Your task to perform on an android device: toggle sleep mode Image 0: 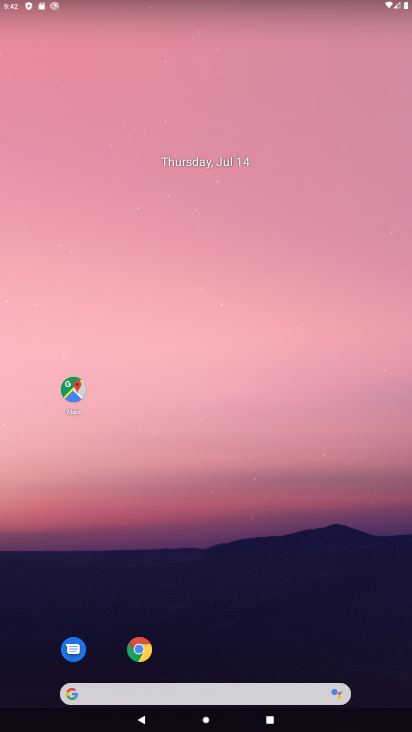
Step 0: drag from (227, 611) to (229, 43)
Your task to perform on an android device: toggle sleep mode Image 1: 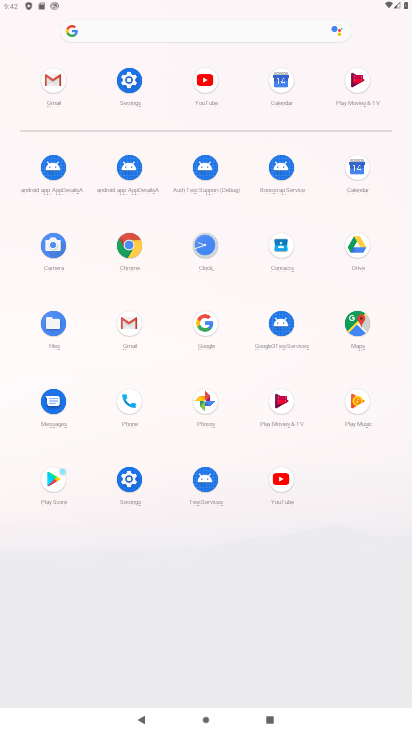
Step 1: click (143, 94)
Your task to perform on an android device: toggle sleep mode Image 2: 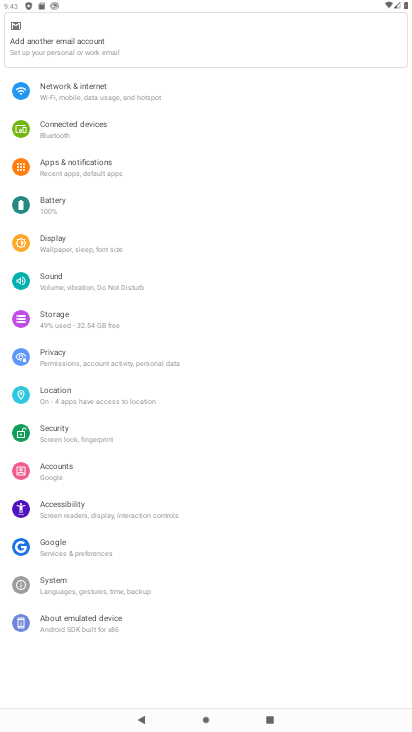
Step 2: click (65, 240)
Your task to perform on an android device: toggle sleep mode Image 3: 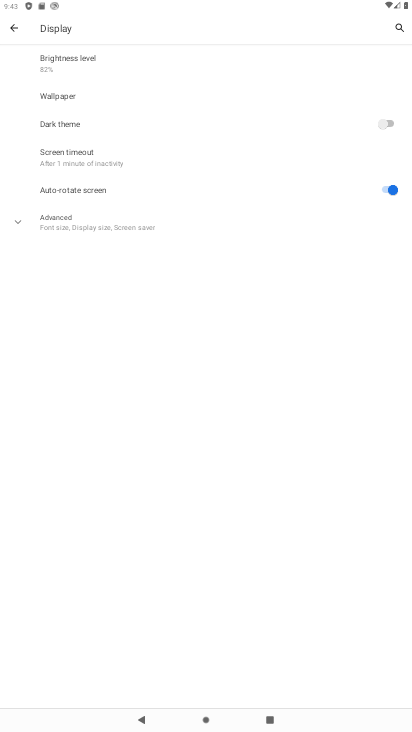
Step 3: click (60, 153)
Your task to perform on an android device: toggle sleep mode Image 4: 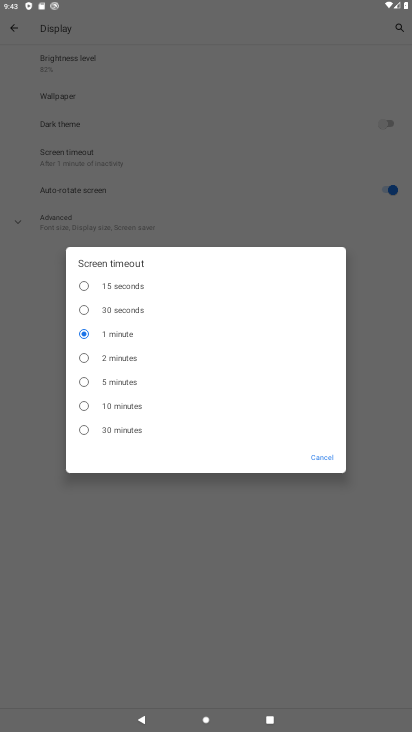
Step 4: click (120, 392)
Your task to perform on an android device: toggle sleep mode Image 5: 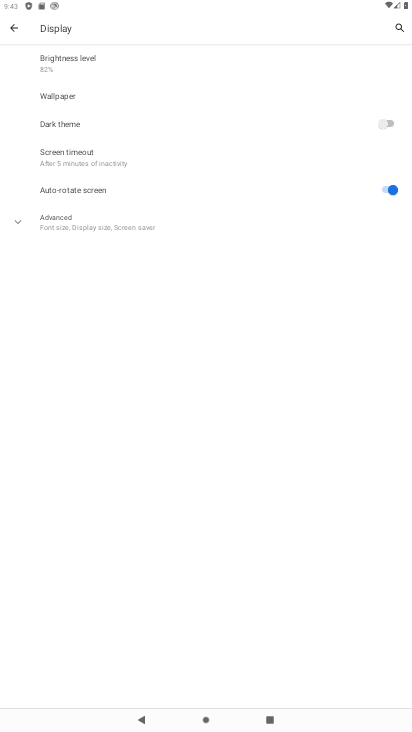
Step 5: task complete